Your task to perform on an android device: open app "Grab" Image 0: 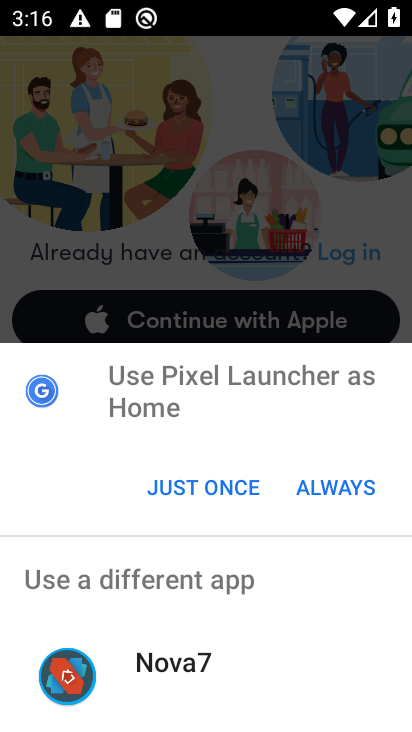
Step 0: click (189, 498)
Your task to perform on an android device: open app "Grab" Image 1: 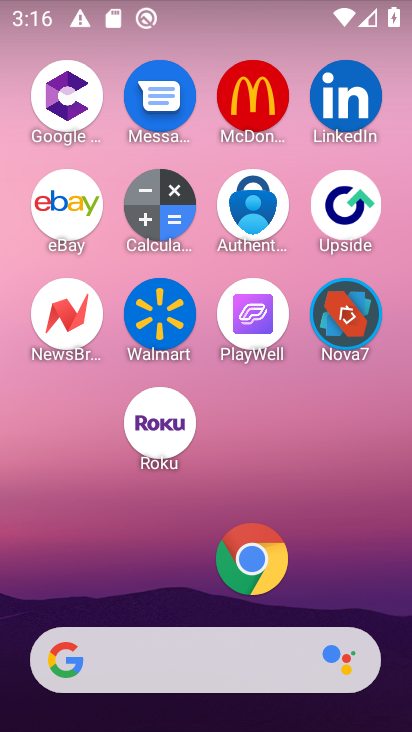
Step 1: drag from (179, 633) to (161, 263)
Your task to perform on an android device: open app "Grab" Image 2: 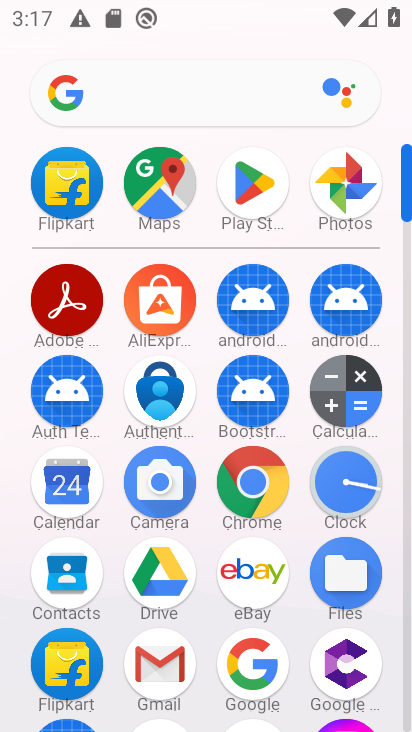
Step 2: click (246, 191)
Your task to perform on an android device: open app "Grab" Image 3: 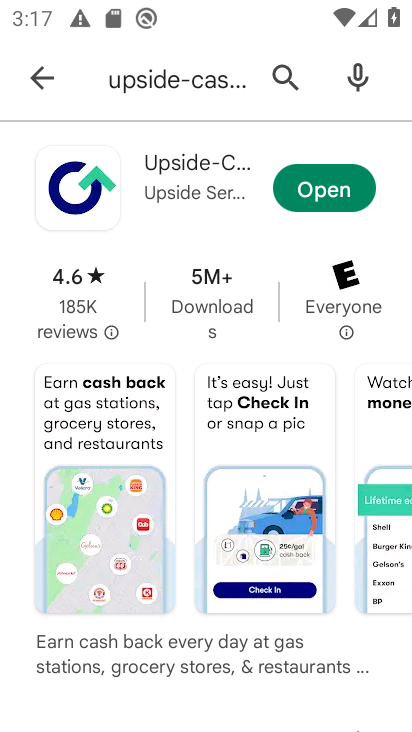
Step 3: click (288, 72)
Your task to perform on an android device: open app "Grab" Image 4: 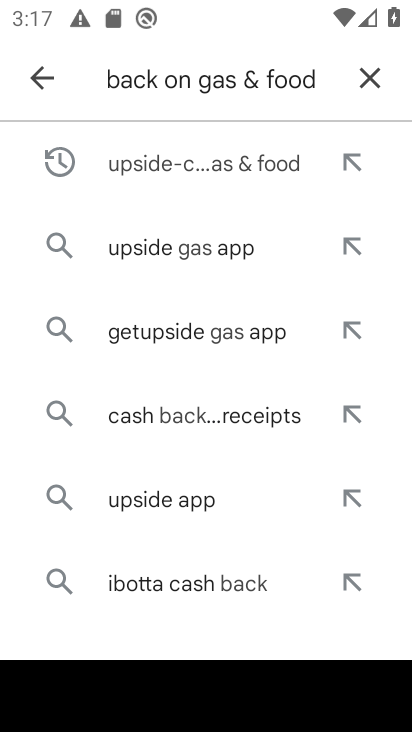
Step 4: type "Grab"
Your task to perform on an android device: open app "Grab" Image 5: 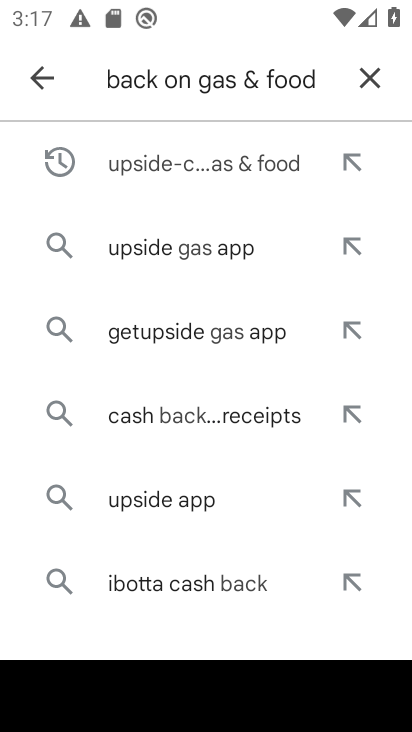
Step 5: click (374, 87)
Your task to perform on an android device: open app "Grab" Image 6: 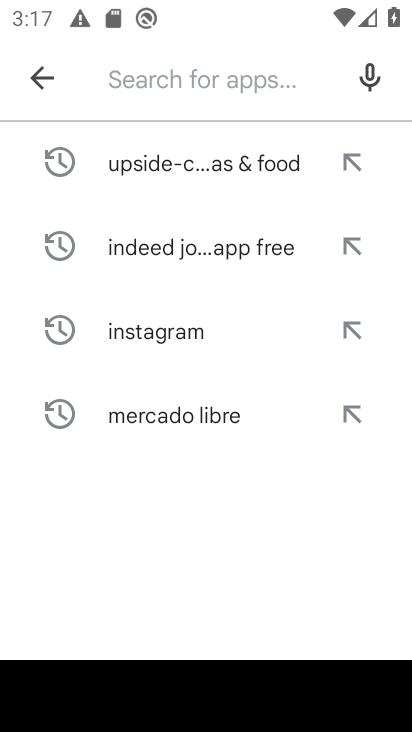
Step 6: type "Grab"
Your task to perform on an android device: open app "Grab" Image 7: 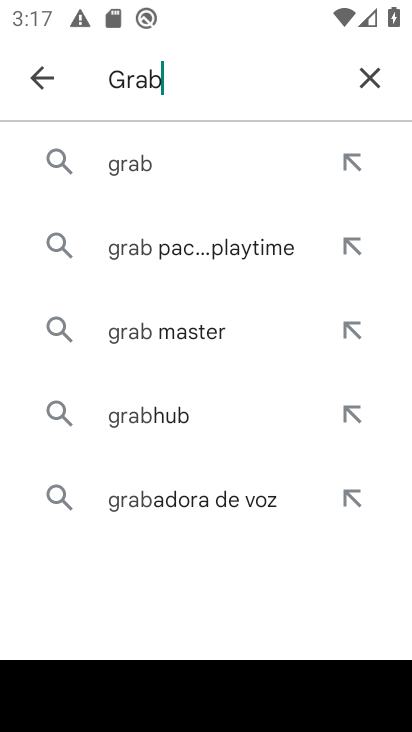
Step 7: click (141, 172)
Your task to perform on an android device: open app "Grab" Image 8: 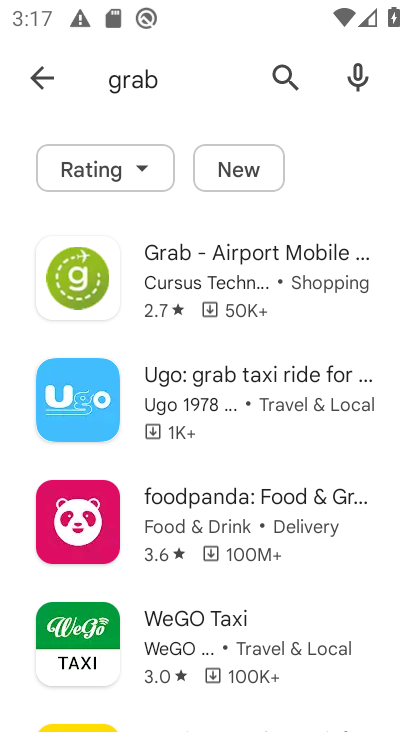
Step 8: click (243, 267)
Your task to perform on an android device: open app "Grab" Image 9: 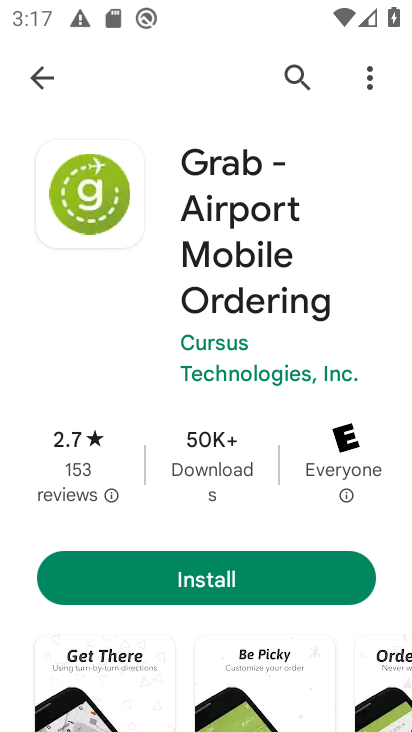
Step 9: click (191, 585)
Your task to perform on an android device: open app "Grab" Image 10: 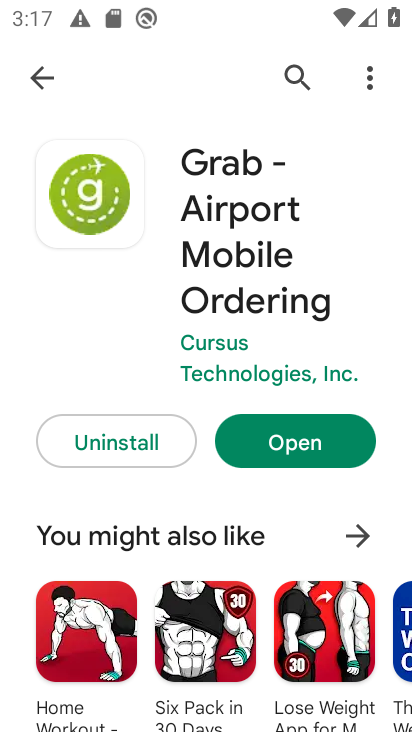
Step 10: click (289, 439)
Your task to perform on an android device: open app "Grab" Image 11: 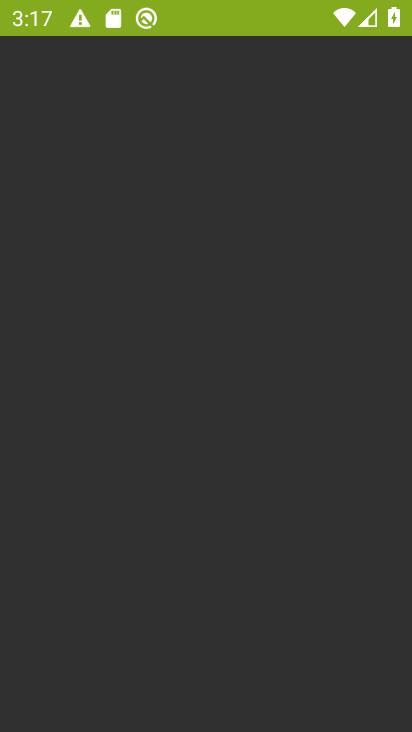
Step 11: task complete